Your task to perform on an android device: turn on priority inbox in the gmail app Image 0: 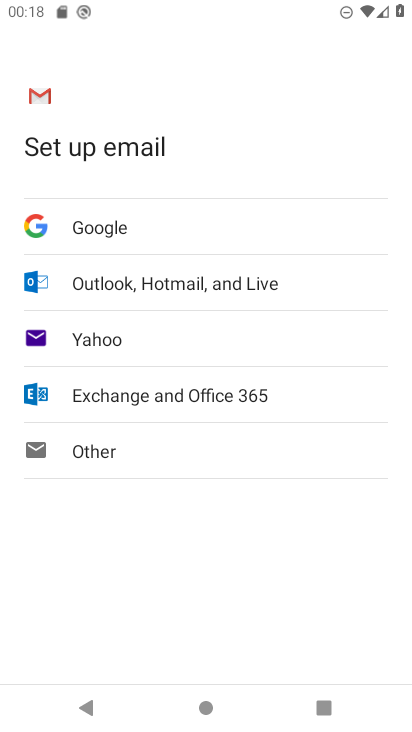
Step 0: press home button
Your task to perform on an android device: turn on priority inbox in the gmail app Image 1: 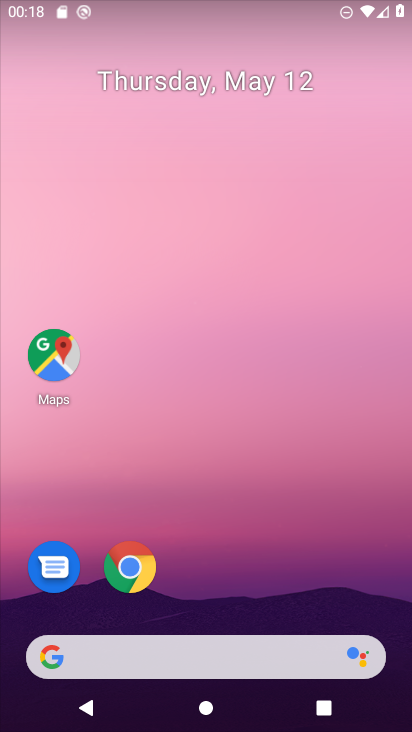
Step 1: drag from (271, 674) to (252, 56)
Your task to perform on an android device: turn on priority inbox in the gmail app Image 2: 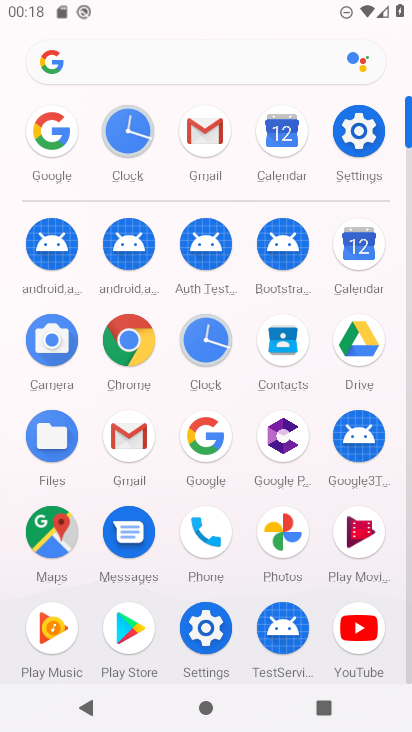
Step 2: click (198, 115)
Your task to perform on an android device: turn on priority inbox in the gmail app Image 3: 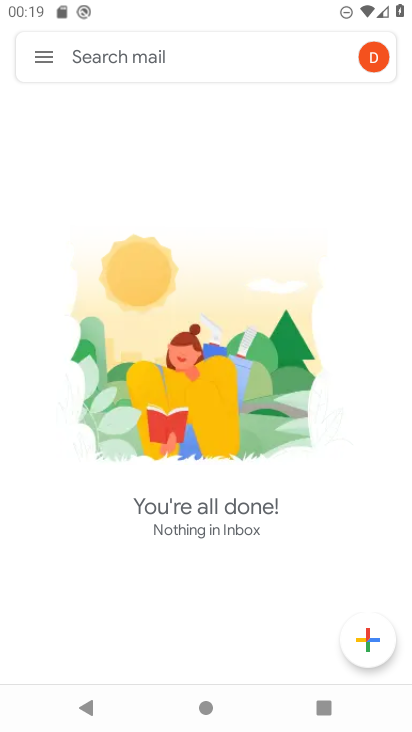
Step 3: click (51, 55)
Your task to perform on an android device: turn on priority inbox in the gmail app Image 4: 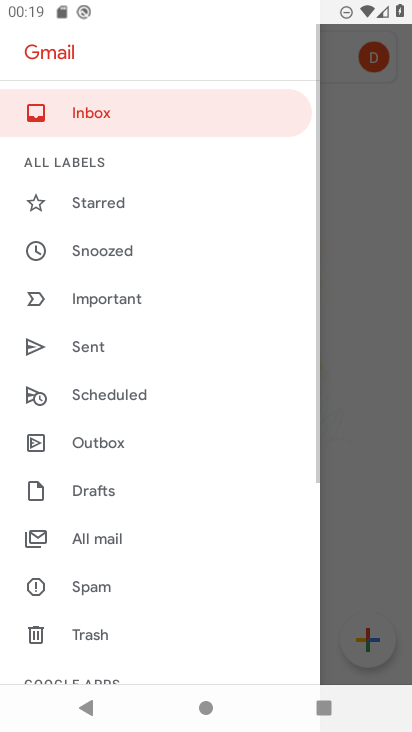
Step 4: drag from (145, 594) to (101, 71)
Your task to perform on an android device: turn on priority inbox in the gmail app Image 5: 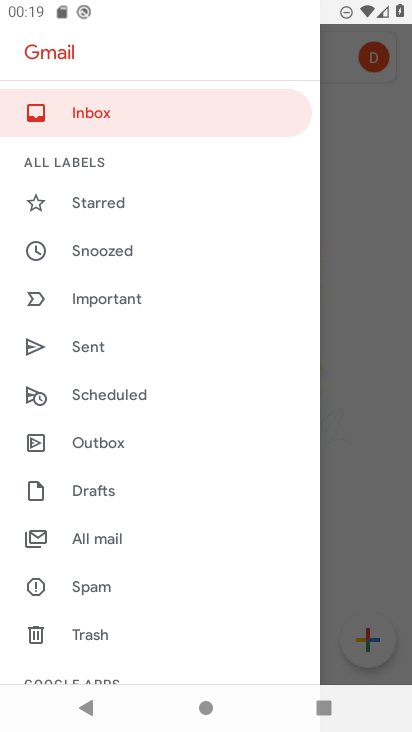
Step 5: drag from (190, 600) to (126, 206)
Your task to perform on an android device: turn on priority inbox in the gmail app Image 6: 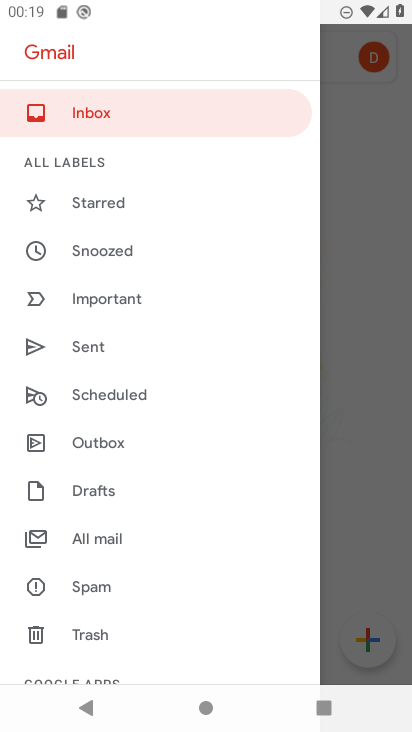
Step 6: drag from (175, 644) to (225, 177)
Your task to perform on an android device: turn on priority inbox in the gmail app Image 7: 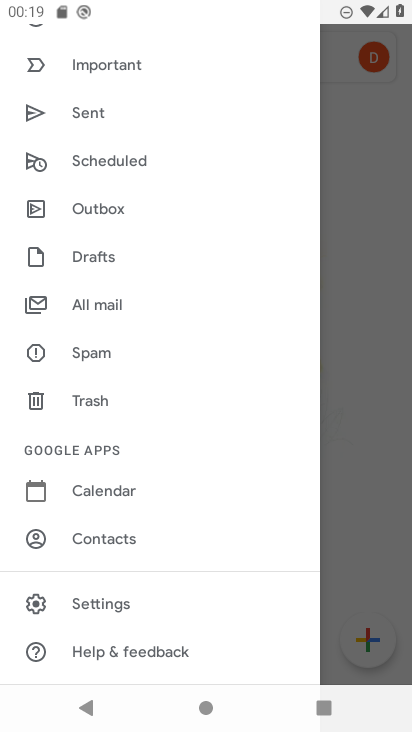
Step 7: click (111, 600)
Your task to perform on an android device: turn on priority inbox in the gmail app Image 8: 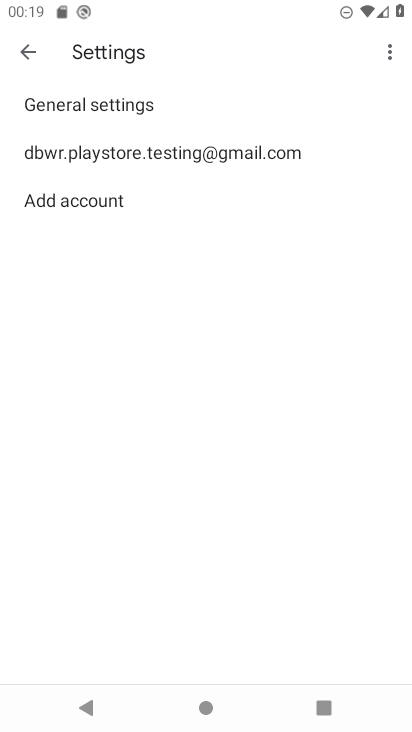
Step 8: click (293, 151)
Your task to perform on an android device: turn on priority inbox in the gmail app Image 9: 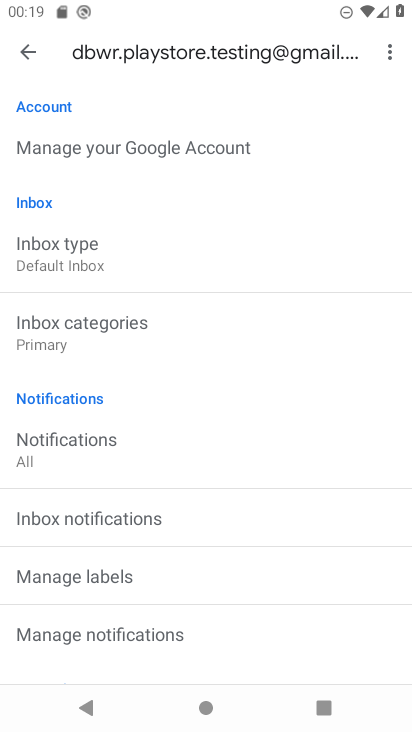
Step 9: click (89, 248)
Your task to perform on an android device: turn on priority inbox in the gmail app Image 10: 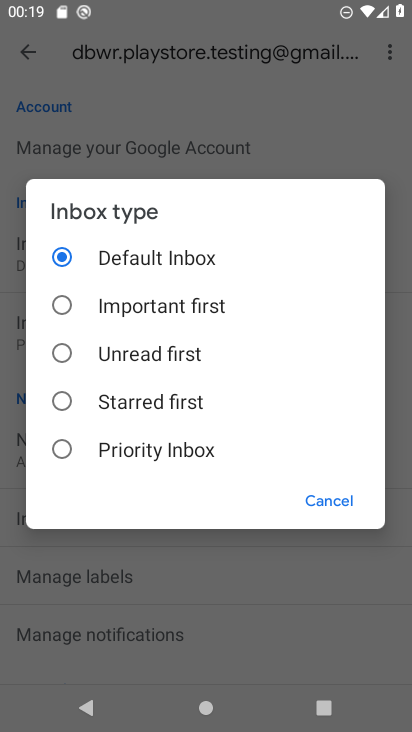
Step 10: click (122, 453)
Your task to perform on an android device: turn on priority inbox in the gmail app Image 11: 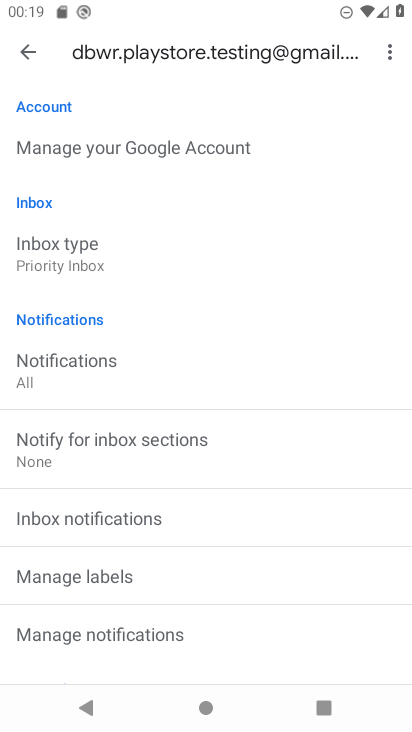
Step 11: task complete